Your task to perform on an android device: What is the news today? Image 0: 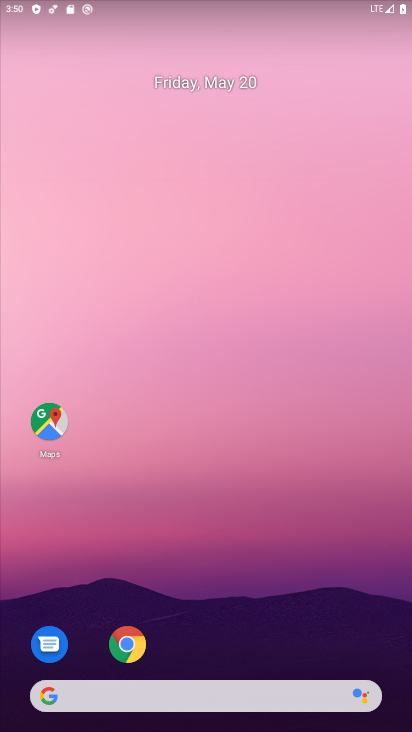
Step 0: drag from (279, 714) to (296, 272)
Your task to perform on an android device: What is the news today? Image 1: 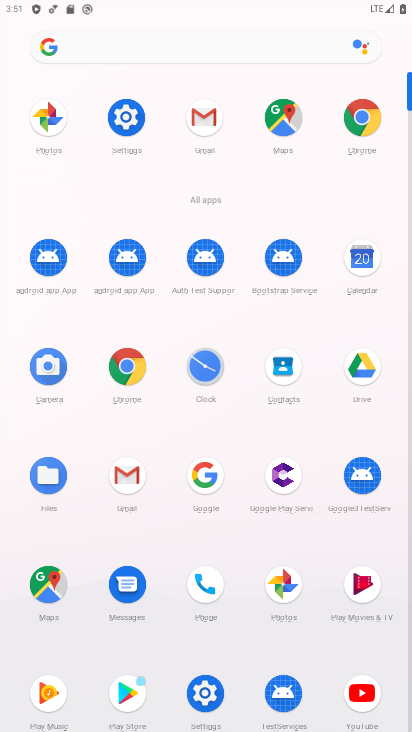
Step 1: click (116, 41)
Your task to perform on an android device: What is the news today? Image 2: 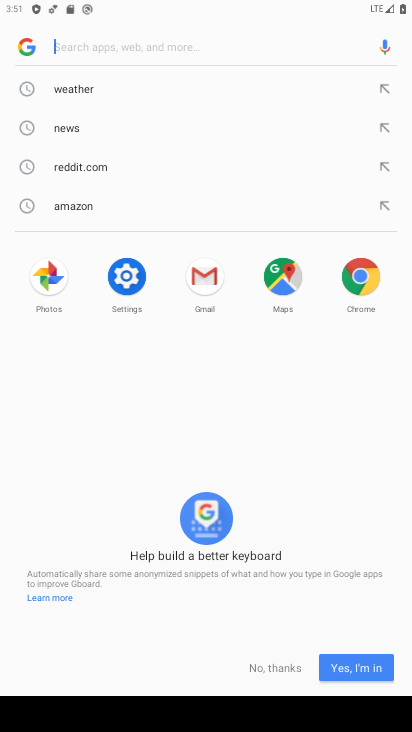
Step 2: click (88, 130)
Your task to perform on an android device: What is the news today? Image 3: 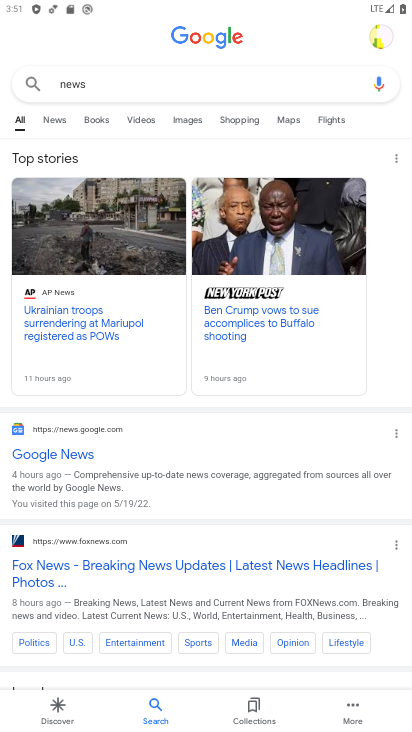
Step 3: task complete